Your task to perform on an android device: toggle sleep mode Image 0: 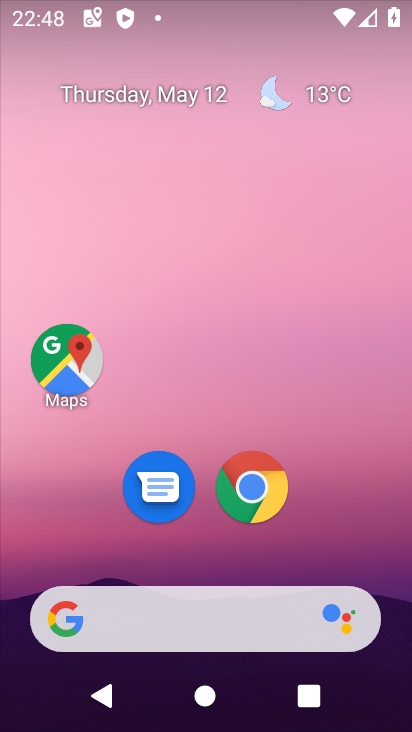
Step 0: drag from (218, 15) to (262, 388)
Your task to perform on an android device: toggle sleep mode Image 1: 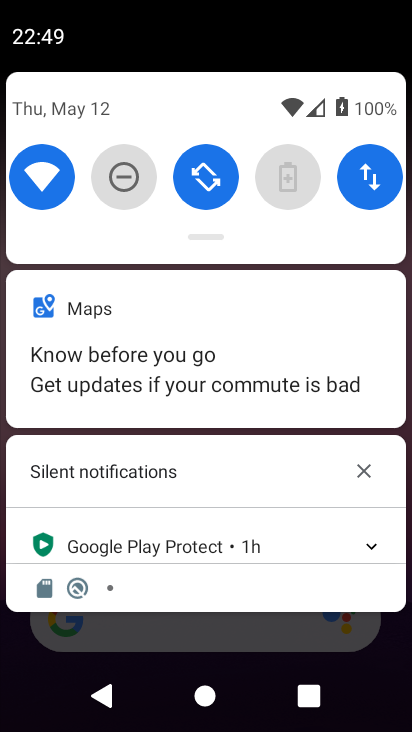
Step 1: drag from (208, 98) to (222, 610)
Your task to perform on an android device: toggle sleep mode Image 2: 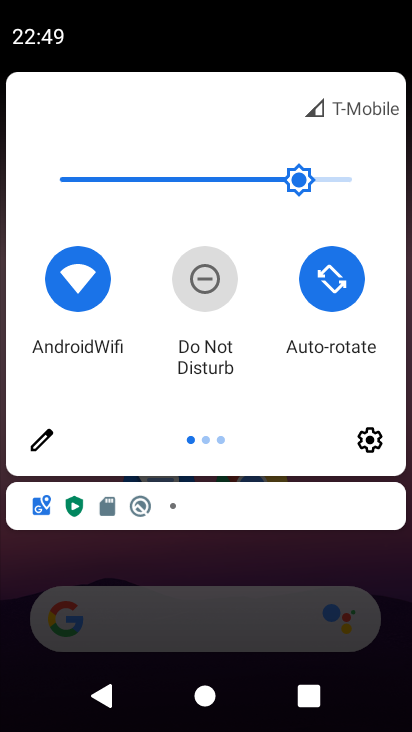
Step 2: click (372, 442)
Your task to perform on an android device: toggle sleep mode Image 3: 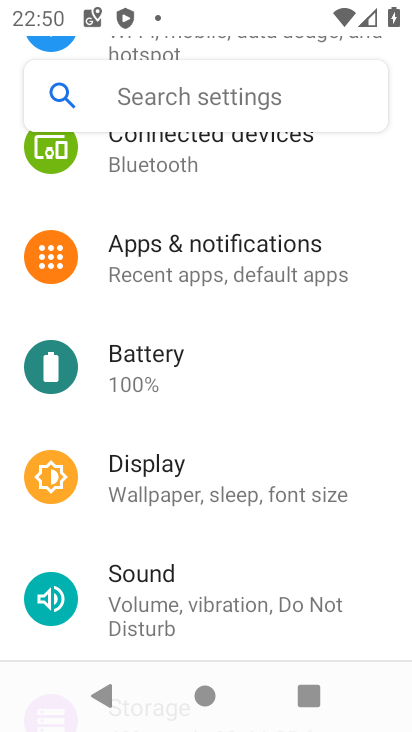
Step 3: task complete